Your task to perform on an android device: Open internet settings Image 0: 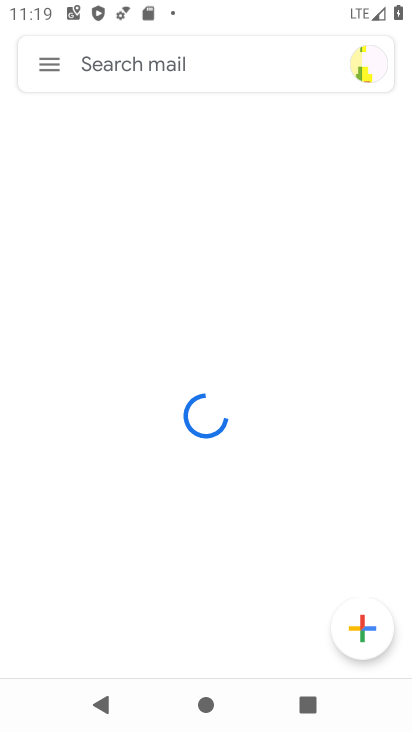
Step 0: press home button
Your task to perform on an android device: Open internet settings Image 1: 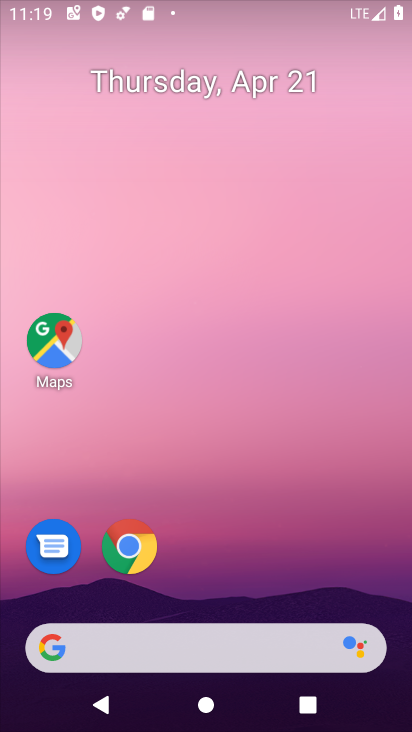
Step 1: drag from (279, 528) to (349, 26)
Your task to perform on an android device: Open internet settings Image 2: 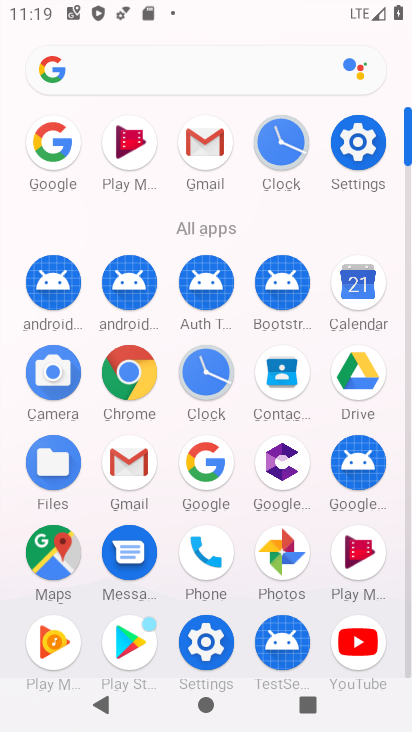
Step 2: click (204, 637)
Your task to perform on an android device: Open internet settings Image 3: 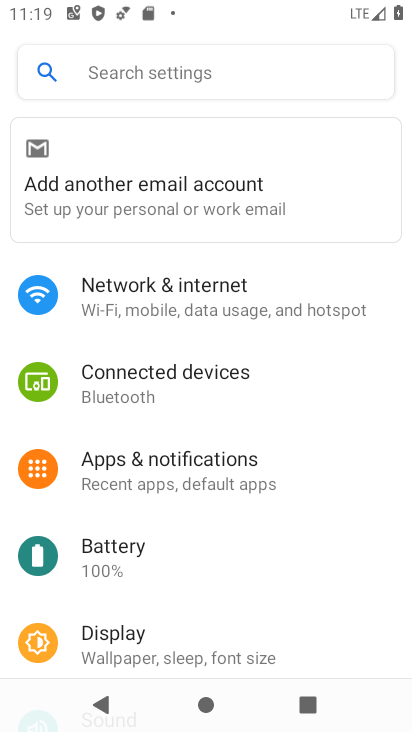
Step 3: click (192, 297)
Your task to perform on an android device: Open internet settings Image 4: 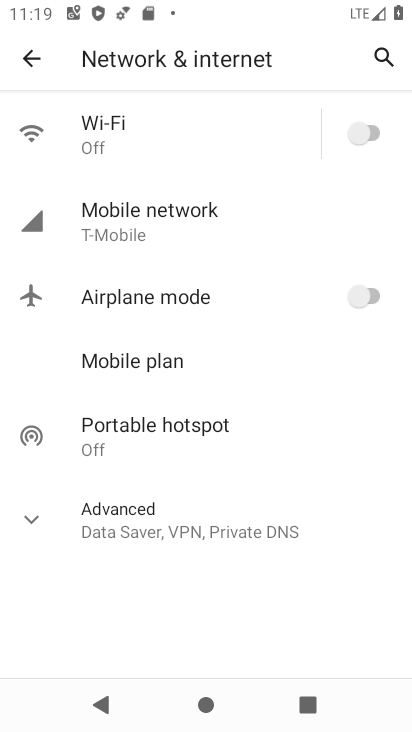
Step 4: click (185, 203)
Your task to perform on an android device: Open internet settings Image 5: 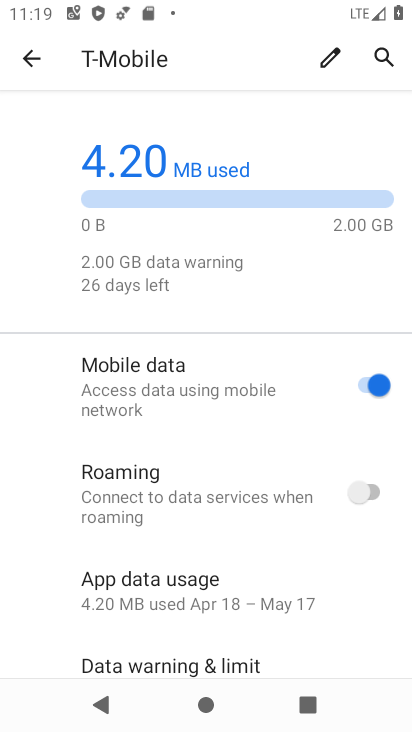
Step 5: press back button
Your task to perform on an android device: Open internet settings Image 6: 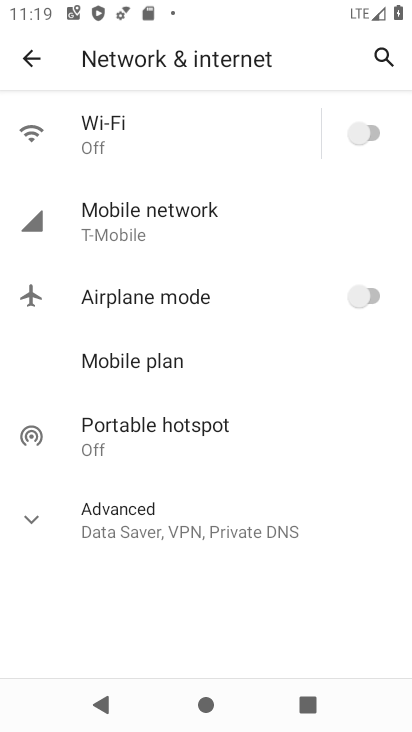
Step 6: click (99, 131)
Your task to perform on an android device: Open internet settings Image 7: 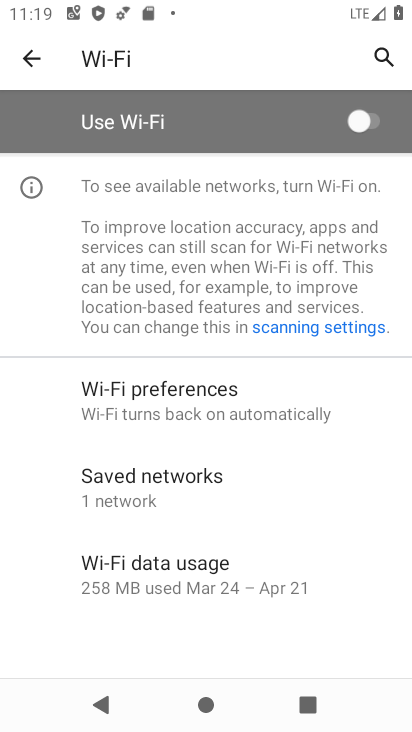
Step 7: click (365, 112)
Your task to perform on an android device: Open internet settings Image 8: 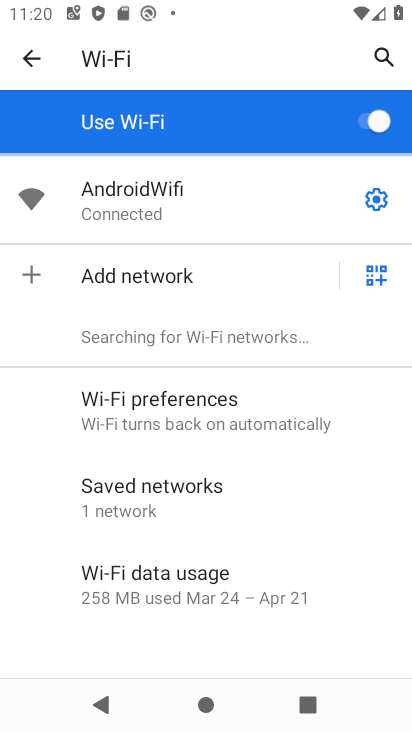
Step 8: click (376, 201)
Your task to perform on an android device: Open internet settings Image 9: 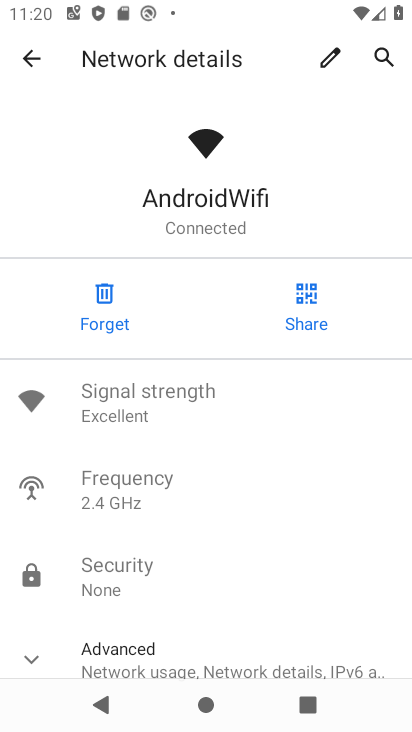
Step 9: task complete